Your task to perform on an android device: Open Reddit.com Image 0: 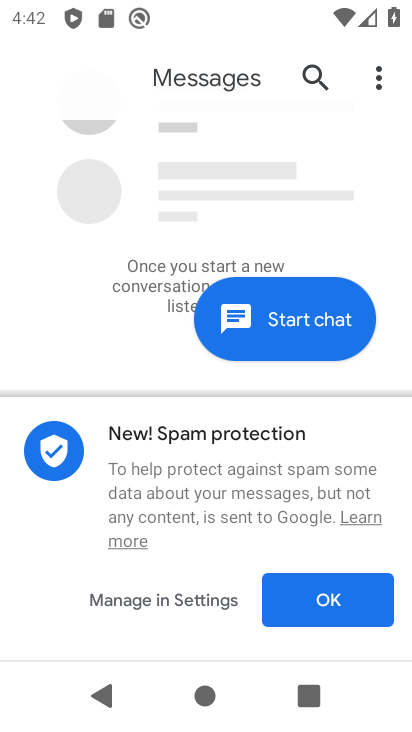
Step 0: click (367, 610)
Your task to perform on an android device: Open Reddit.com Image 1: 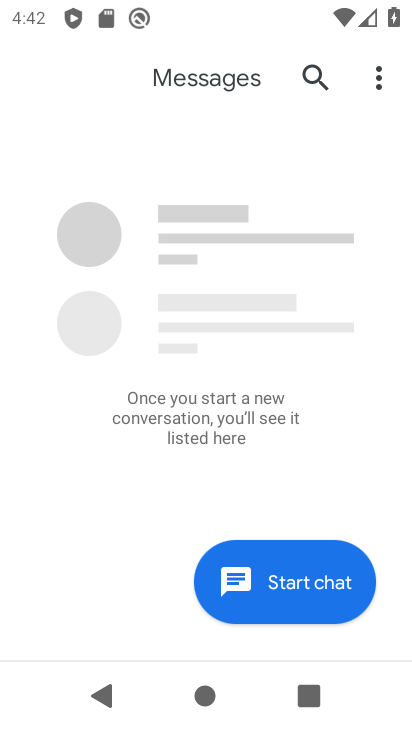
Step 1: press home button
Your task to perform on an android device: Open Reddit.com Image 2: 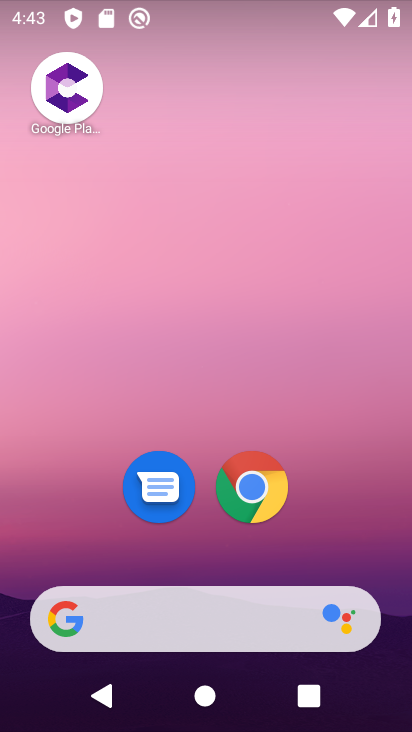
Step 2: click (256, 496)
Your task to perform on an android device: Open Reddit.com Image 3: 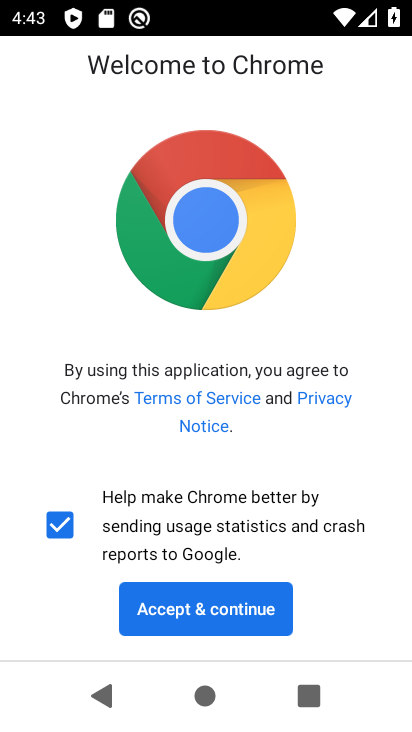
Step 3: click (208, 621)
Your task to perform on an android device: Open Reddit.com Image 4: 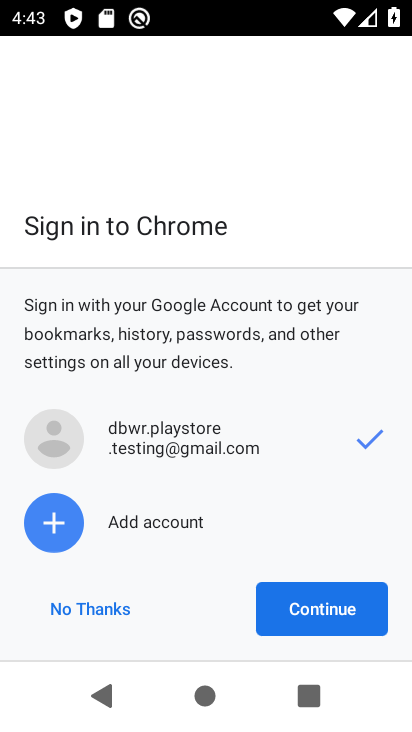
Step 4: click (297, 600)
Your task to perform on an android device: Open Reddit.com Image 5: 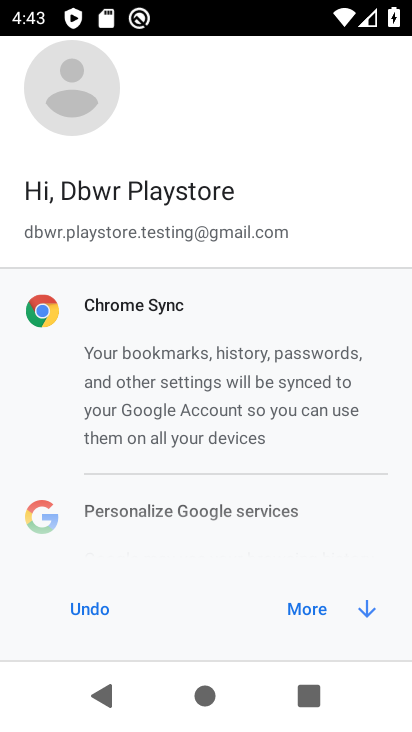
Step 5: click (317, 595)
Your task to perform on an android device: Open Reddit.com Image 6: 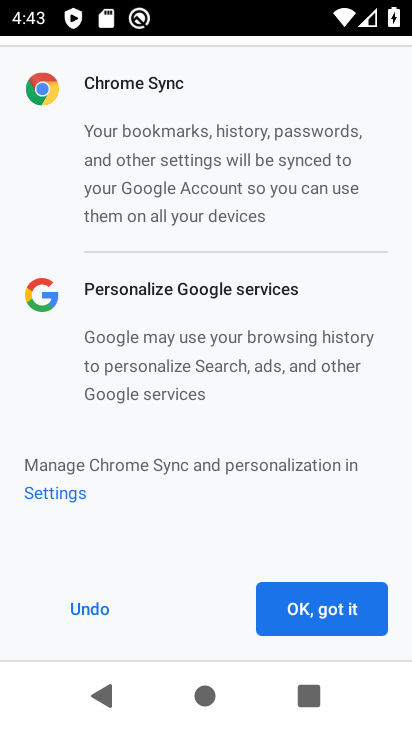
Step 6: click (344, 596)
Your task to perform on an android device: Open Reddit.com Image 7: 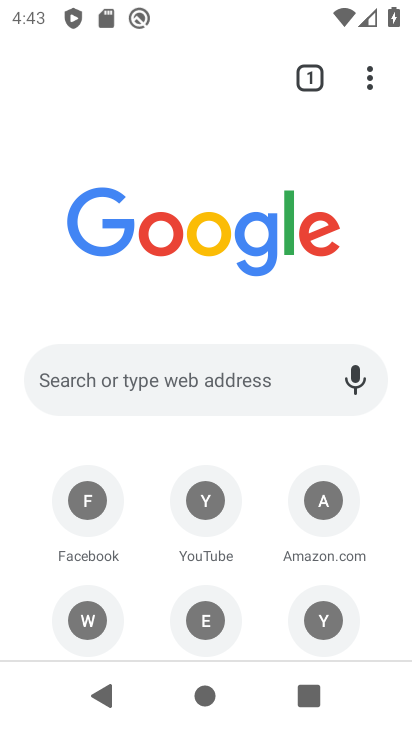
Step 7: click (191, 78)
Your task to perform on an android device: Open Reddit.com Image 8: 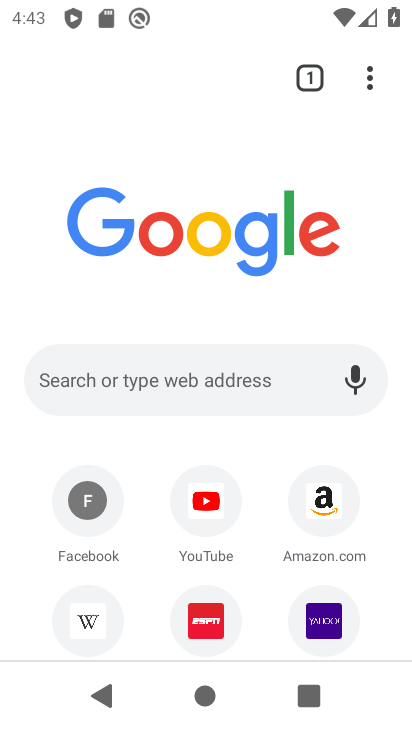
Step 8: type "redddit.com"
Your task to perform on an android device: Open Reddit.com Image 9: 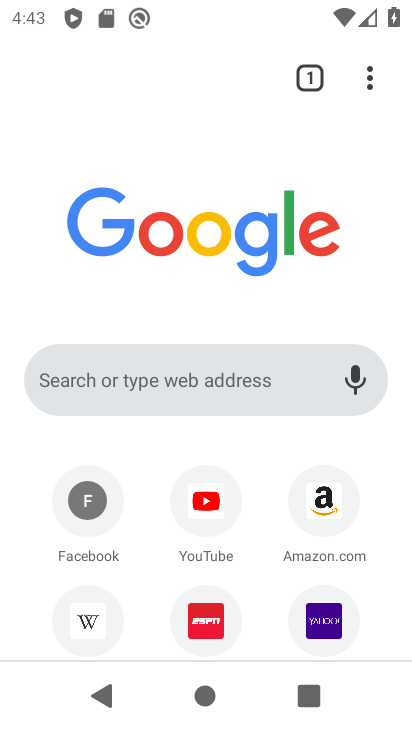
Step 9: click (206, 383)
Your task to perform on an android device: Open Reddit.com Image 10: 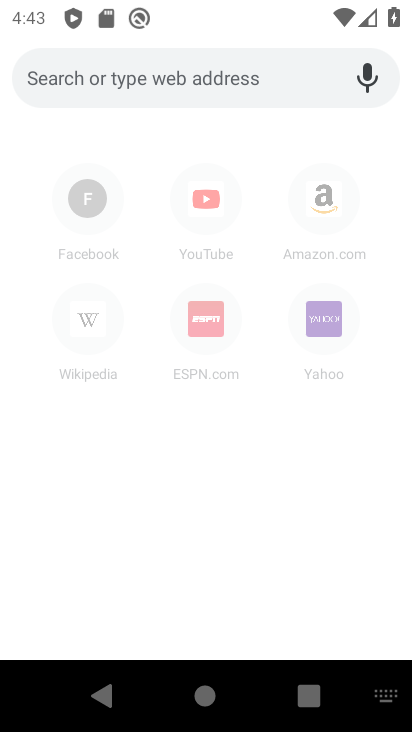
Step 10: type "reddit,com"
Your task to perform on an android device: Open Reddit.com Image 11: 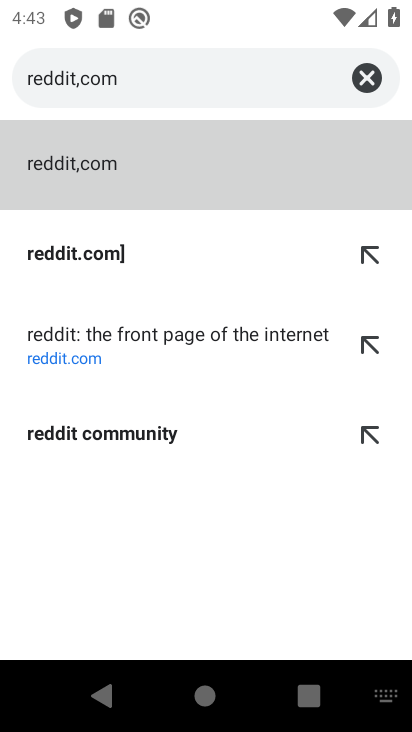
Step 11: click (119, 330)
Your task to perform on an android device: Open Reddit.com Image 12: 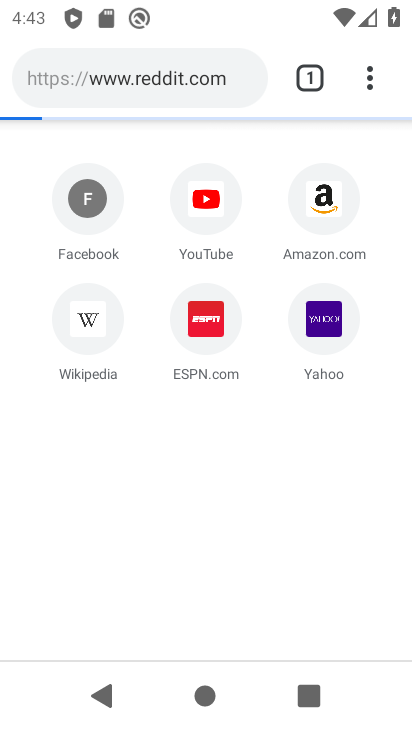
Step 12: task complete